Your task to perform on an android device: Open network settings Image 0: 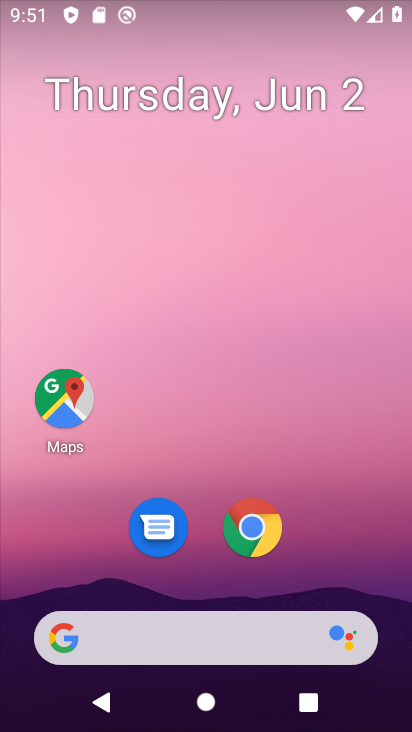
Step 0: drag from (330, 551) to (242, 145)
Your task to perform on an android device: Open network settings Image 1: 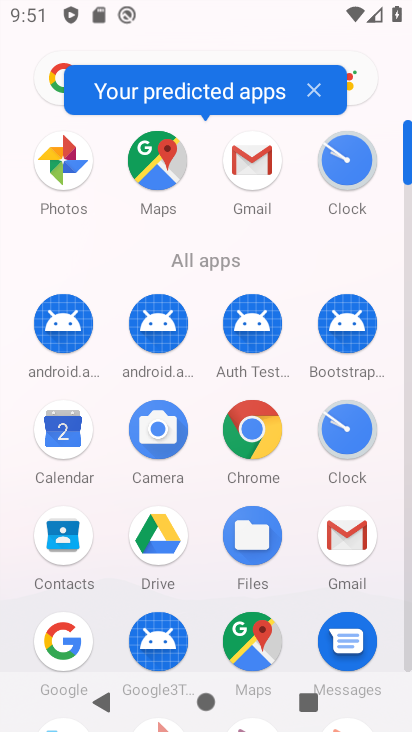
Step 1: drag from (302, 271) to (292, 63)
Your task to perform on an android device: Open network settings Image 2: 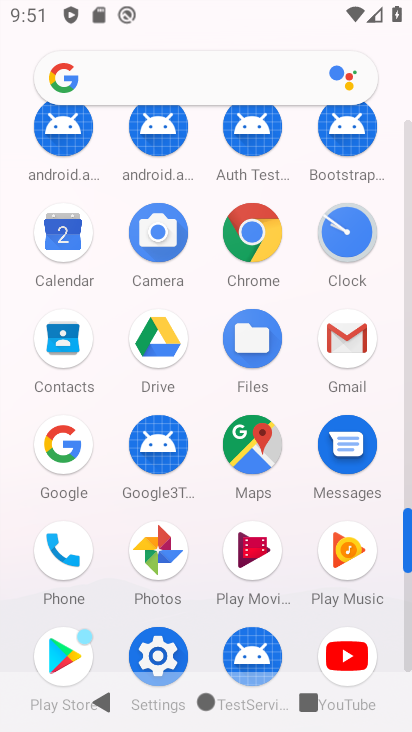
Step 2: click (156, 650)
Your task to perform on an android device: Open network settings Image 3: 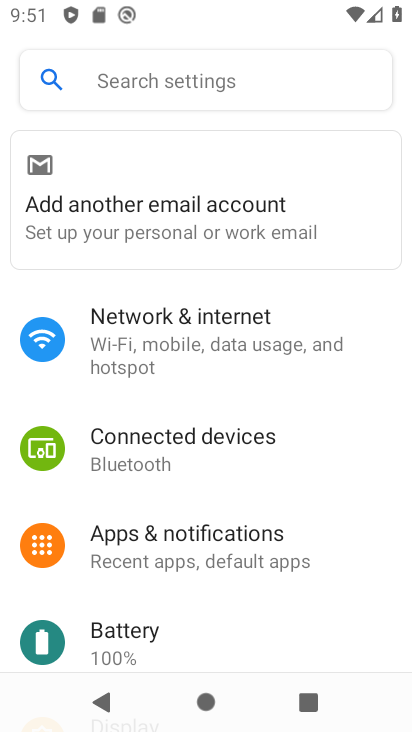
Step 3: click (193, 345)
Your task to perform on an android device: Open network settings Image 4: 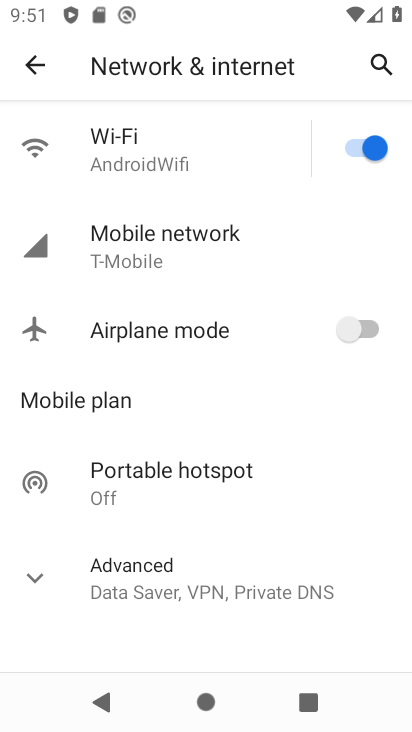
Step 4: task complete